Your task to perform on an android device: Show me recent news Image 0: 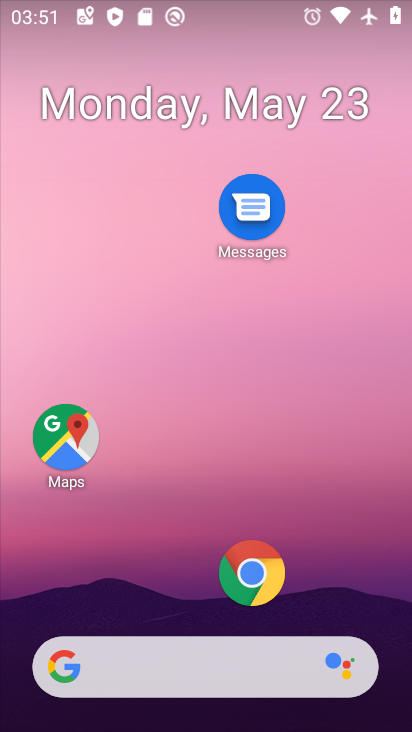
Step 0: drag from (123, 648) to (278, 12)
Your task to perform on an android device: Show me recent news Image 1: 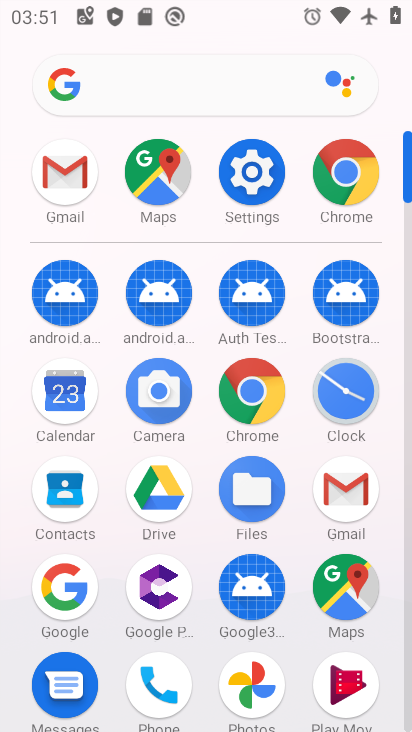
Step 1: click (251, 411)
Your task to perform on an android device: Show me recent news Image 2: 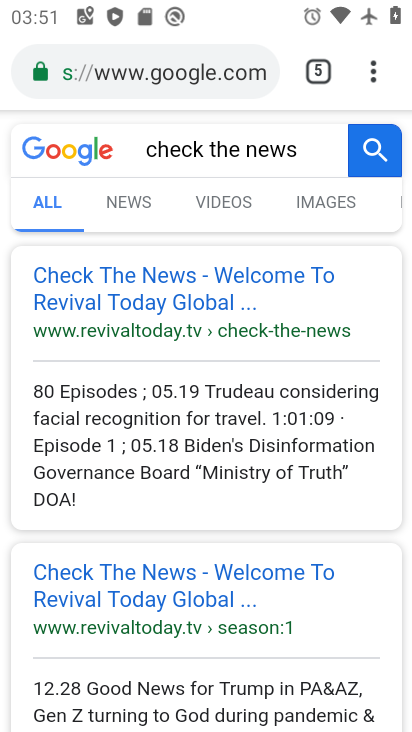
Step 2: click (220, 64)
Your task to perform on an android device: Show me recent news Image 3: 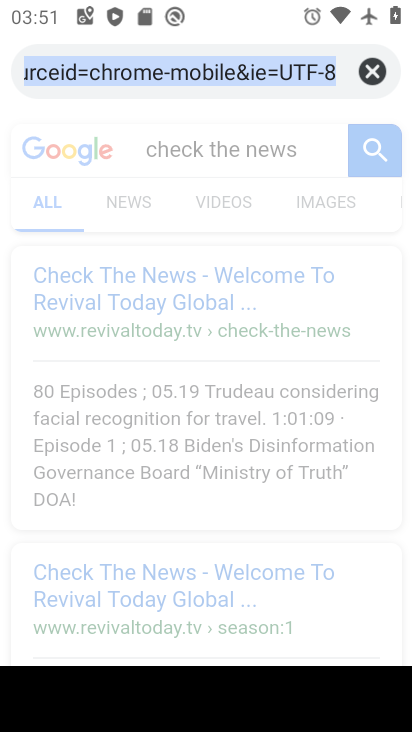
Step 3: click (374, 68)
Your task to perform on an android device: Show me recent news Image 4: 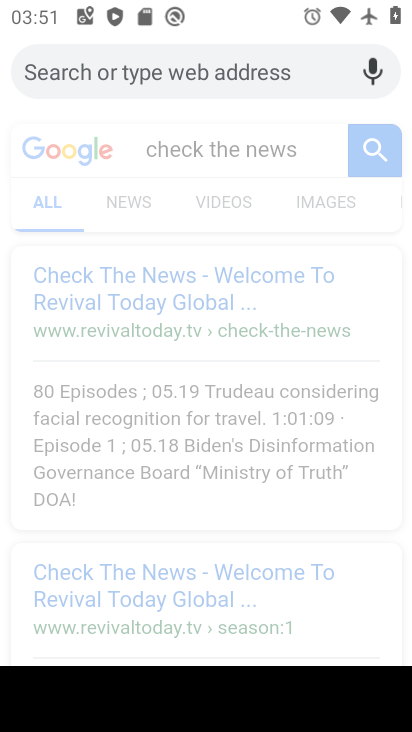
Step 4: type "recent news"
Your task to perform on an android device: Show me recent news Image 5: 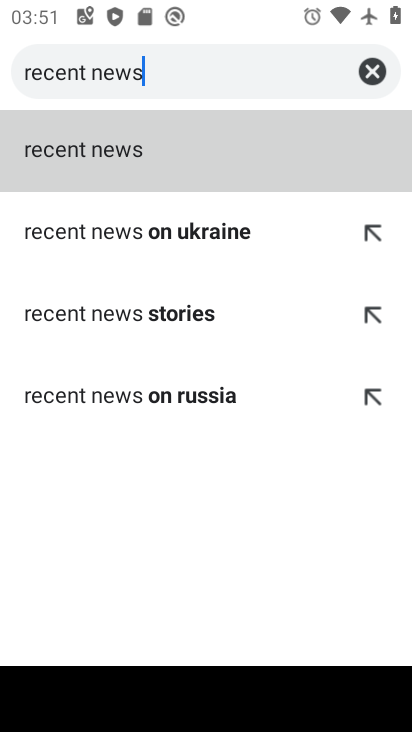
Step 5: click (109, 132)
Your task to perform on an android device: Show me recent news Image 6: 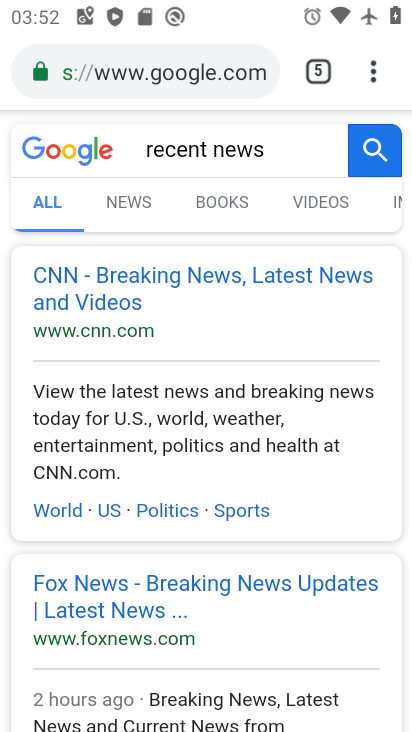
Step 6: task complete